Your task to perform on an android device: check battery use Image 0: 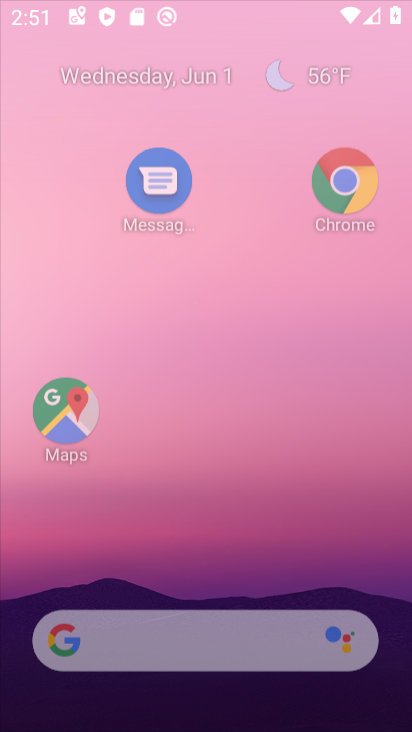
Step 0: click (252, 90)
Your task to perform on an android device: check battery use Image 1: 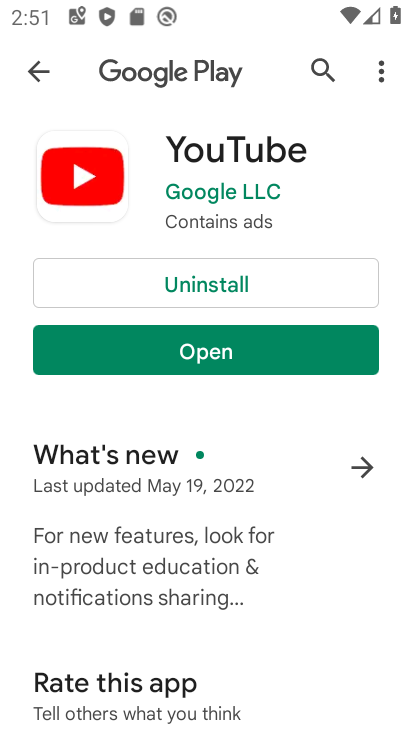
Step 1: press home button
Your task to perform on an android device: check battery use Image 2: 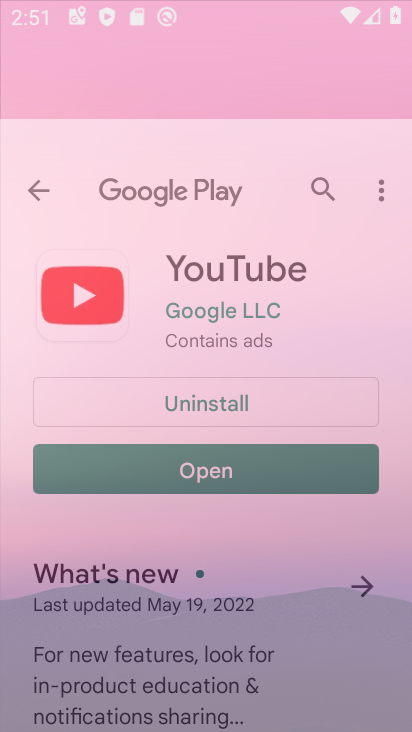
Step 2: drag from (236, 623) to (383, 34)
Your task to perform on an android device: check battery use Image 3: 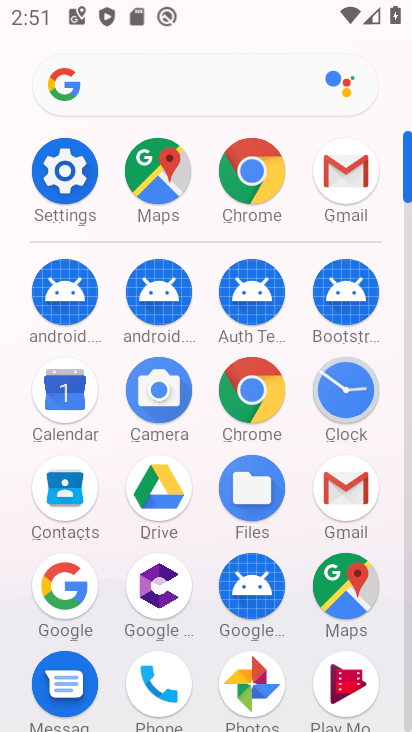
Step 3: click (71, 174)
Your task to perform on an android device: check battery use Image 4: 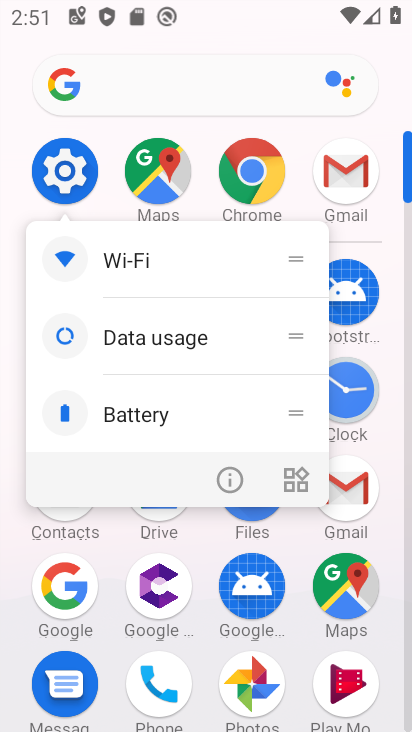
Step 4: click (157, 402)
Your task to perform on an android device: check battery use Image 5: 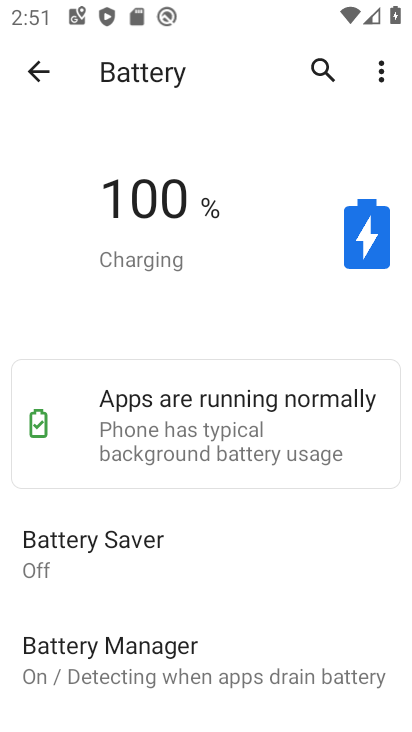
Step 5: task complete